Your task to perform on an android device: turn smart compose on in the gmail app Image 0: 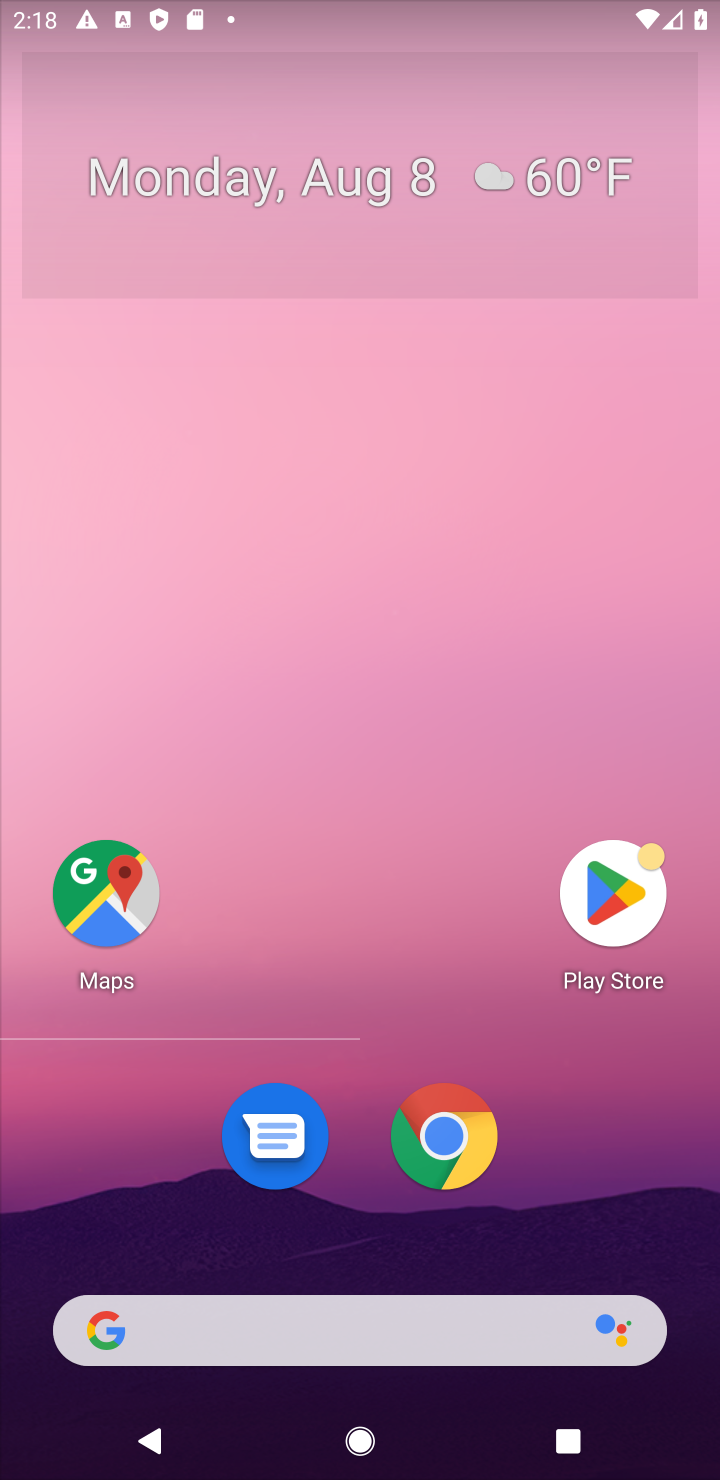
Step 0: drag from (19, 1406) to (384, 385)
Your task to perform on an android device: turn smart compose on in the gmail app Image 1: 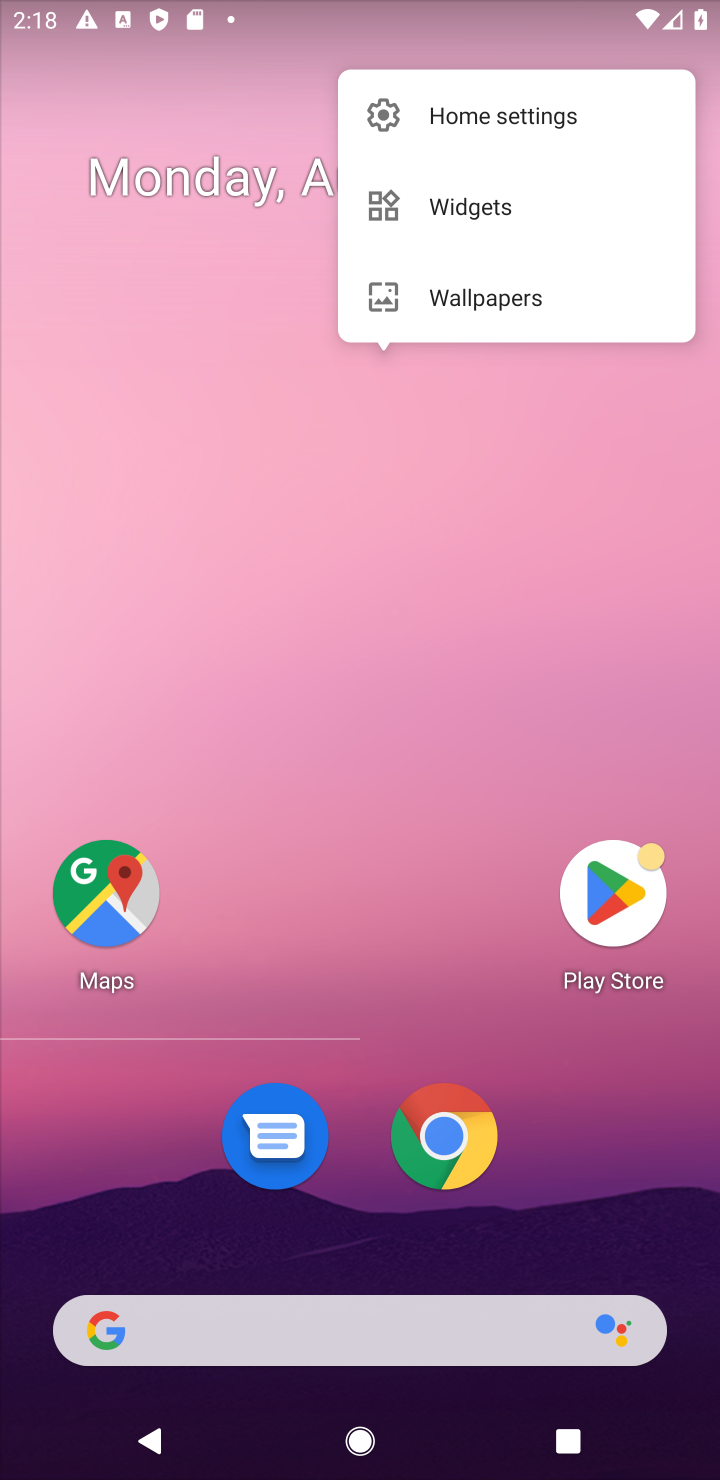
Step 1: task complete